Your task to perform on an android device: turn off translation in the chrome app Image 0: 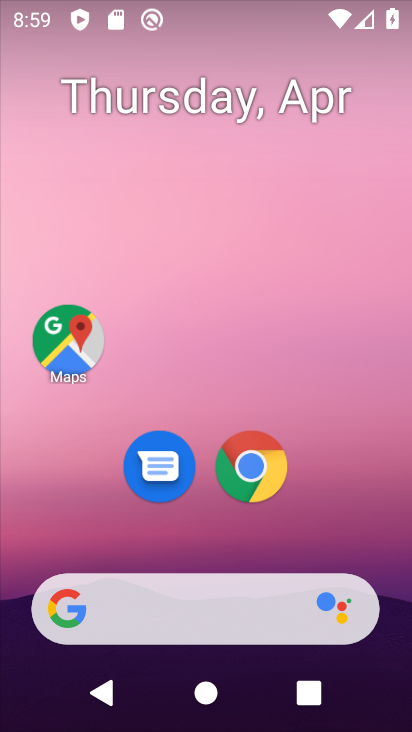
Step 0: click (262, 466)
Your task to perform on an android device: turn off translation in the chrome app Image 1: 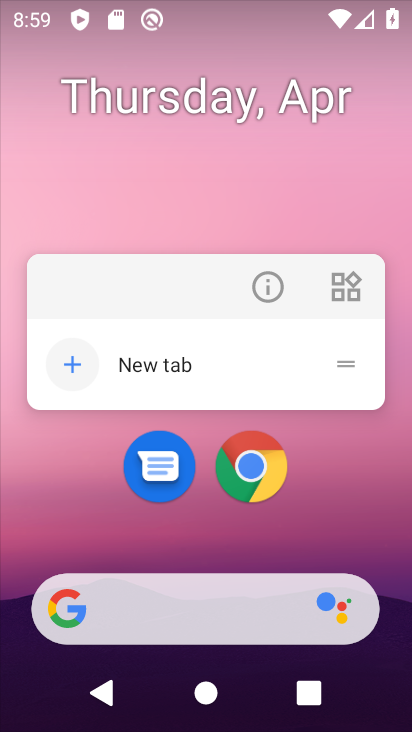
Step 1: click (262, 466)
Your task to perform on an android device: turn off translation in the chrome app Image 2: 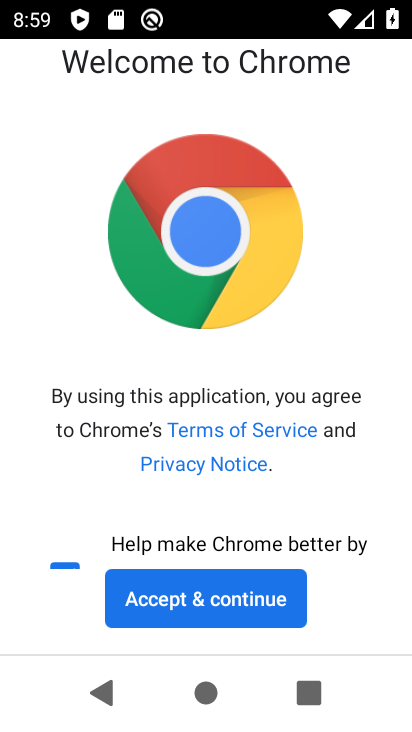
Step 2: click (242, 597)
Your task to perform on an android device: turn off translation in the chrome app Image 3: 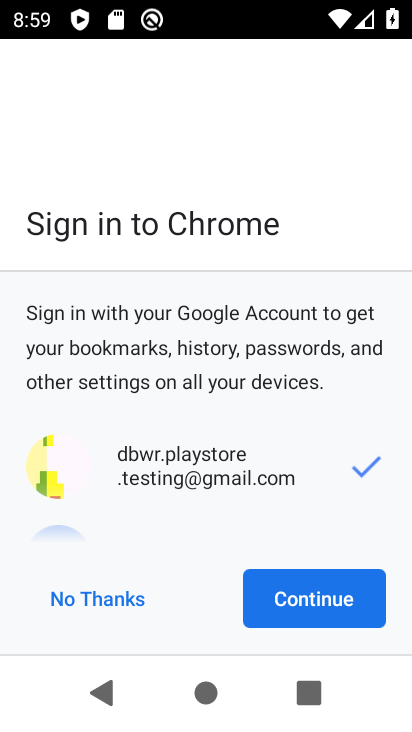
Step 3: click (297, 594)
Your task to perform on an android device: turn off translation in the chrome app Image 4: 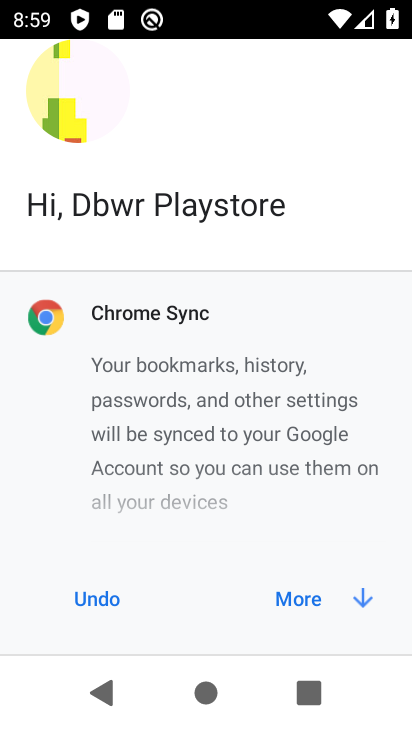
Step 4: click (297, 593)
Your task to perform on an android device: turn off translation in the chrome app Image 5: 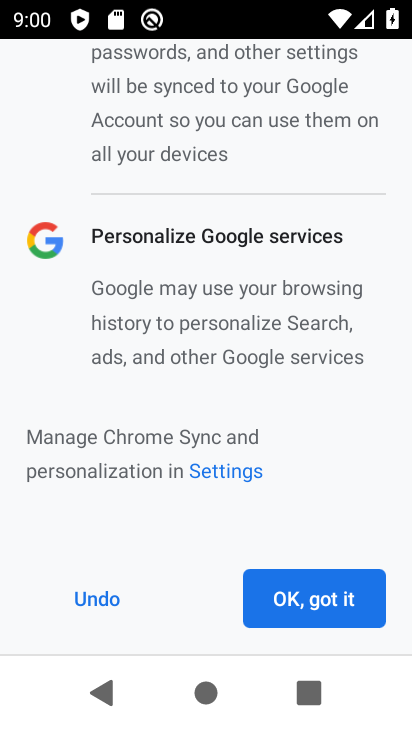
Step 5: click (297, 593)
Your task to perform on an android device: turn off translation in the chrome app Image 6: 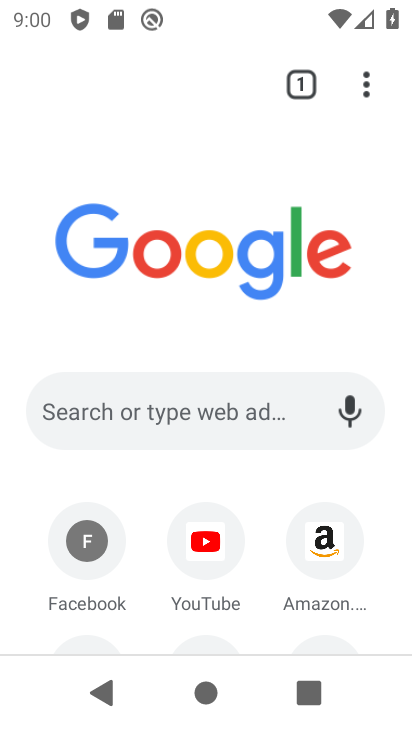
Step 6: click (366, 83)
Your task to perform on an android device: turn off translation in the chrome app Image 7: 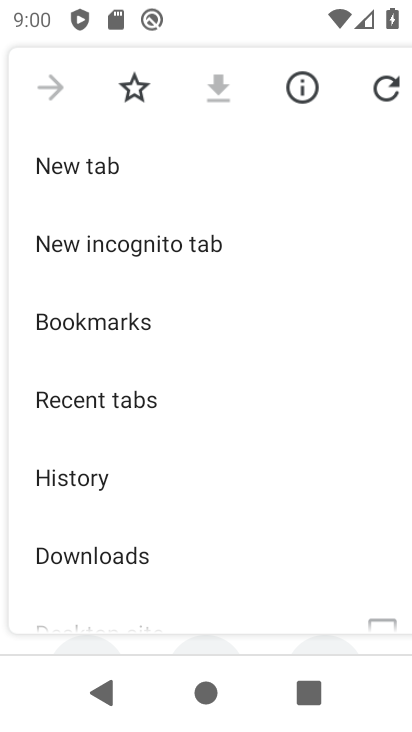
Step 7: drag from (233, 499) to (271, 143)
Your task to perform on an android device: turn off translation in the chrome app Image 8: 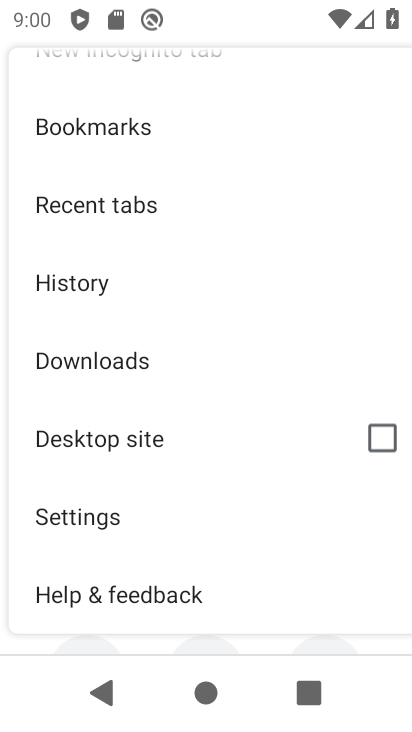
Step 8: click (155, 508)
Your task to perform on an android device: turn off translation in the chrome app Image 9: 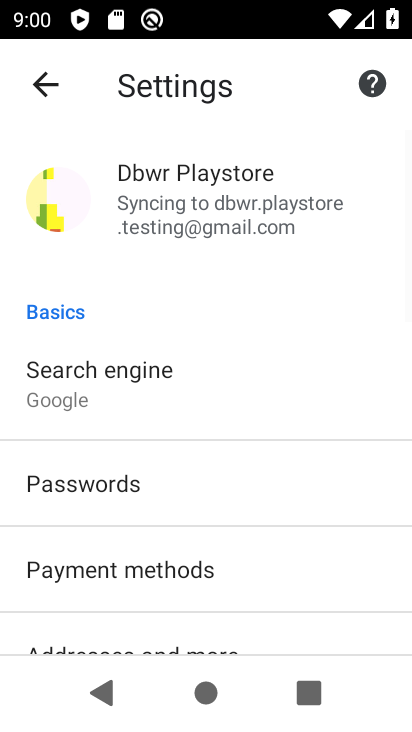
Step 9: drag from (256, 561) to (332, 180)
Your task to perform on an android device: turn off translation in the chrome app Image 10: 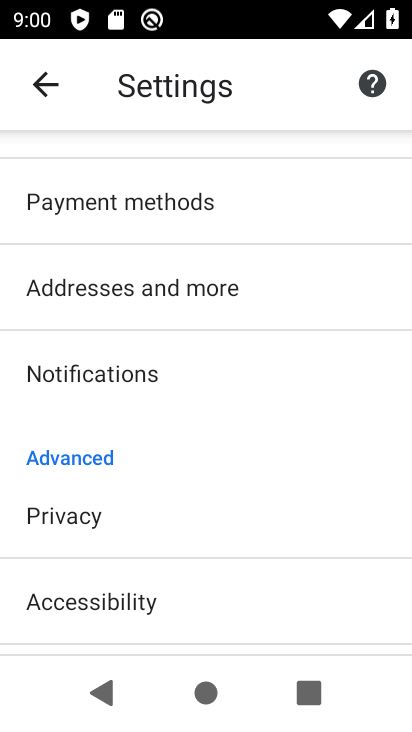
Step 10: drag from (224, 610) to (271, 233)
Your task to perform on an android device: turn off translation in the chrome app Image 11: 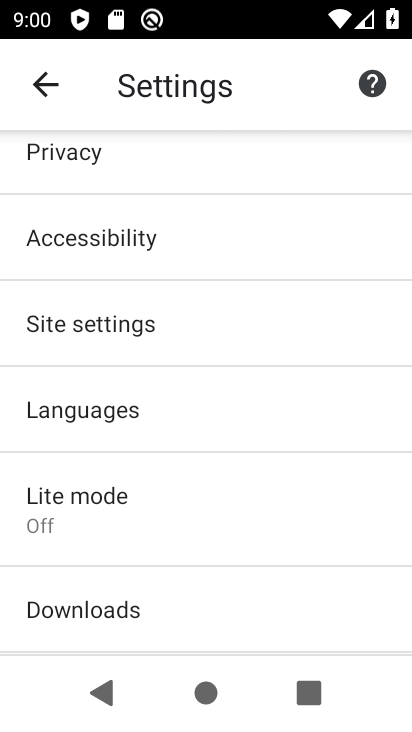
Step 11: click (213, 401)
Your task to perform on an android device: turn off translation in the chrome app Image 12: 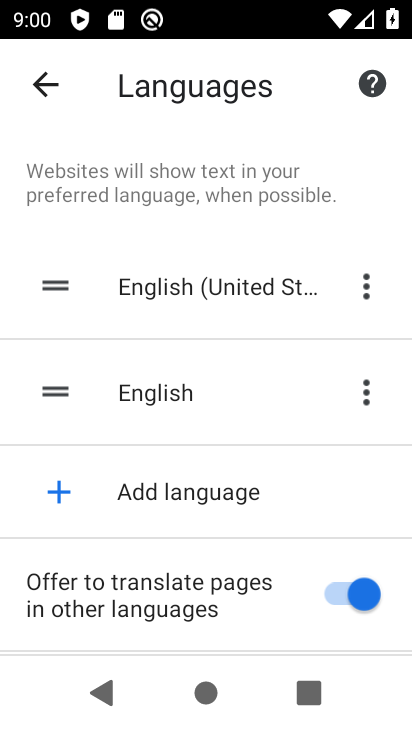
Step 12: click (329, 585)
Your task to perform on an android device: turn off translation in the chrome app Image 13: 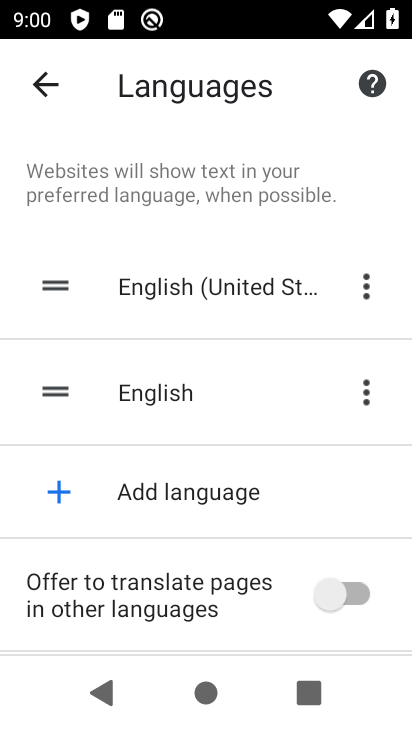
Step 13: task complete